Your task to perform on an android device: Find coffee shops on Maps Image 0: 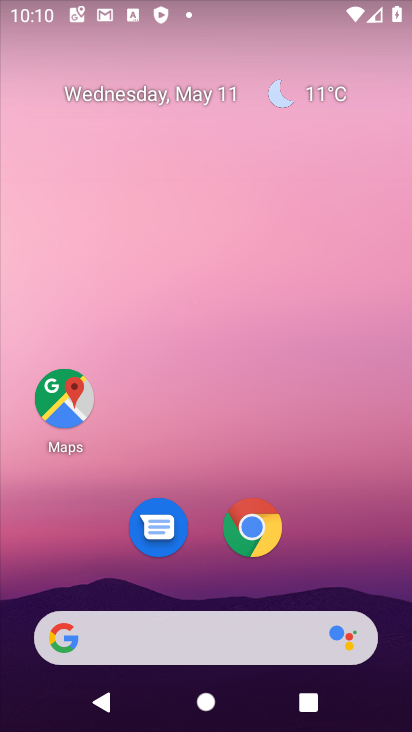
Step 0: drag from (352, 492) to (371, 13)
Your task to perform on an android device: Find coffee shops on Maps Image 1: 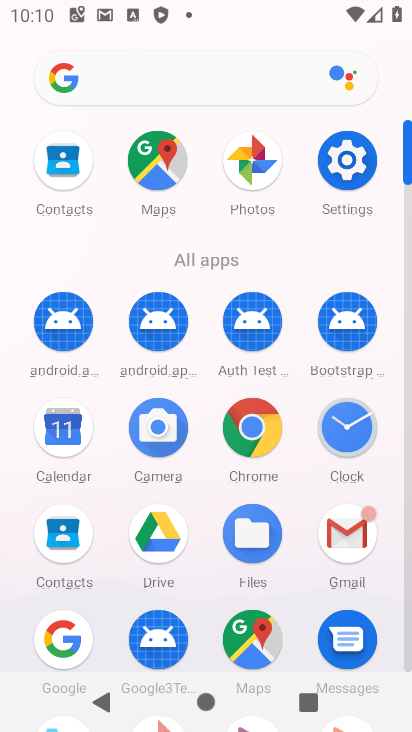
Step 1: click (157, 160)
Your task to perform on an android device: Find coffee shops on Maps Image 2: 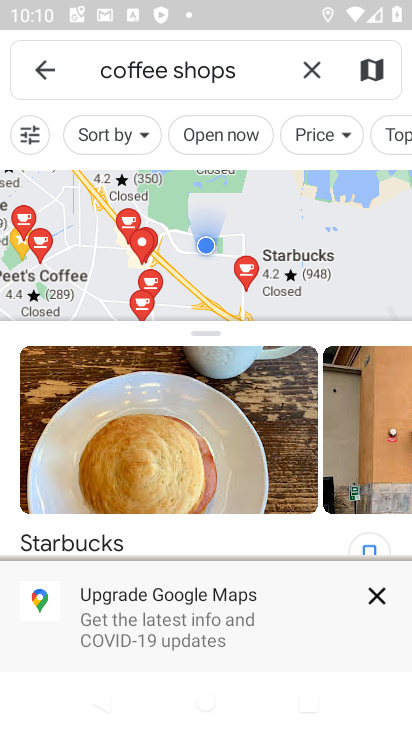
Step 2: task complete